Your task to perform on an android device: open sync settings in chrome Image 0: 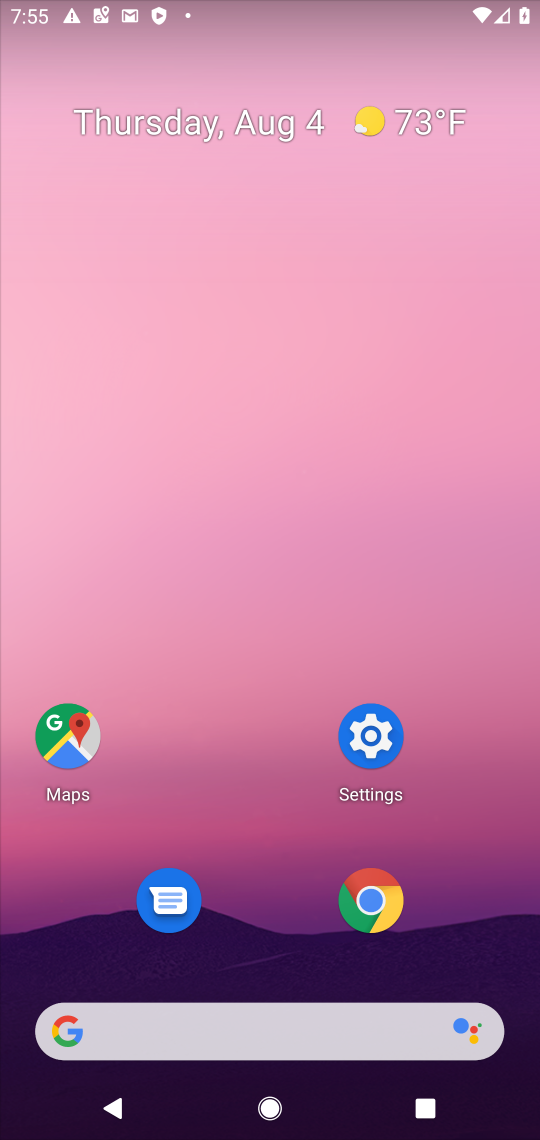
Step 0: click (372, 900)
Your task to perform on an android device: open sync settings in chrome Image 1: 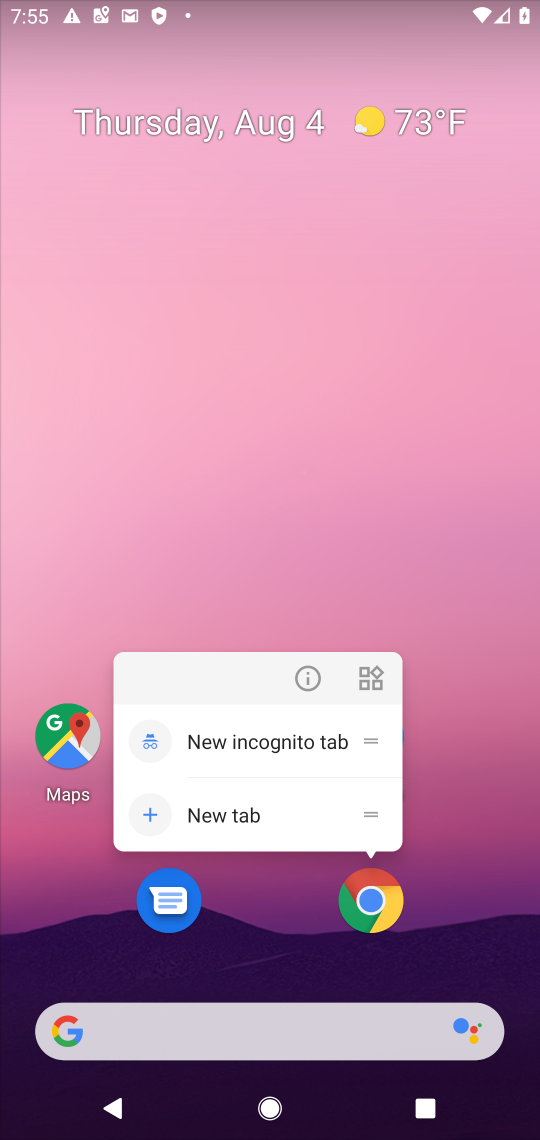
Step 1: click (372, 903)
Your task to perform on an android device: open sync settings in chrome Image 2: 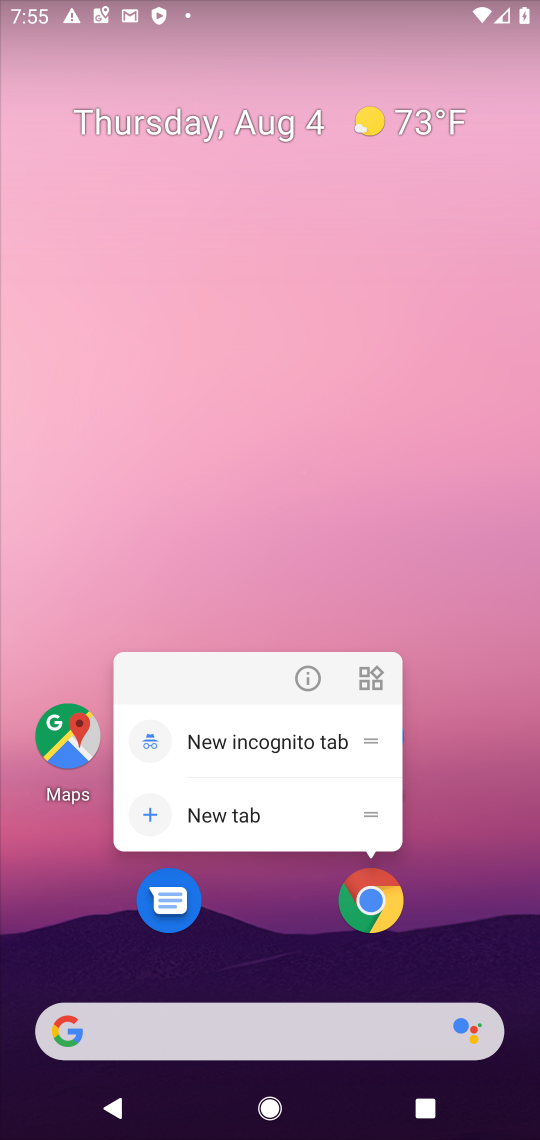
Step 2: click (372, 905)
Your task to perform on an android device: open sync settings in chrome Image 3: 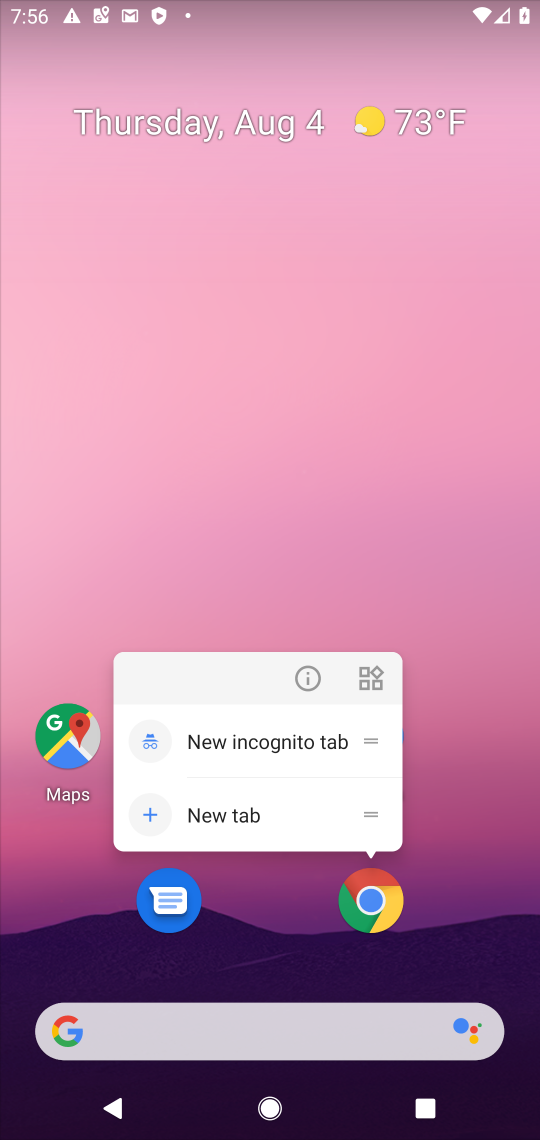
Step 3: click (372, 903)
Your task to perform on an android device: open sync settings in chrome Image 4: 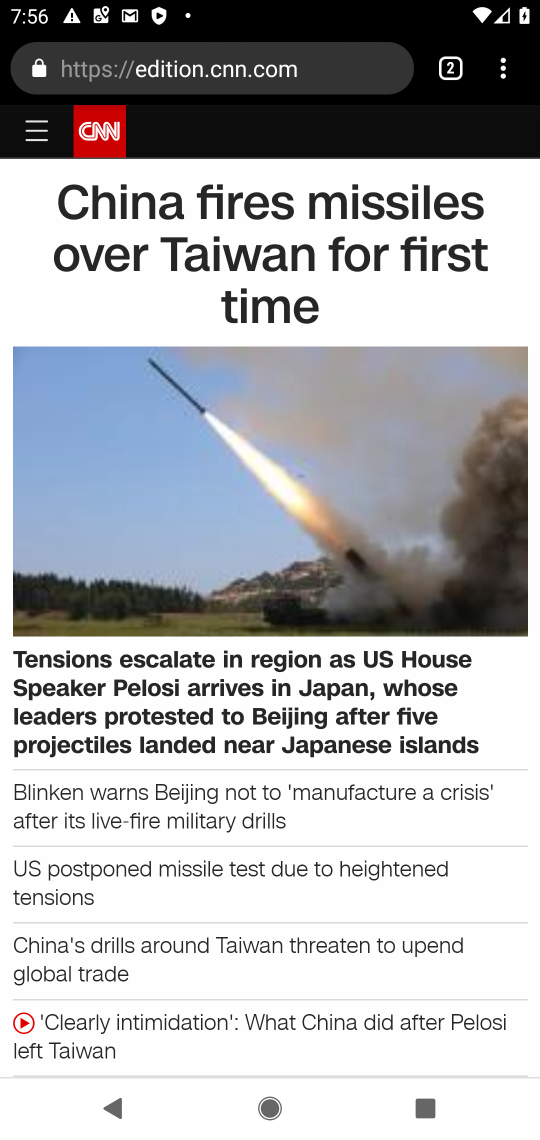
Step 4: drag from (501, 65) to (309, 842)
Your task to perform on an android device: open sync settings in chrome Image 5: 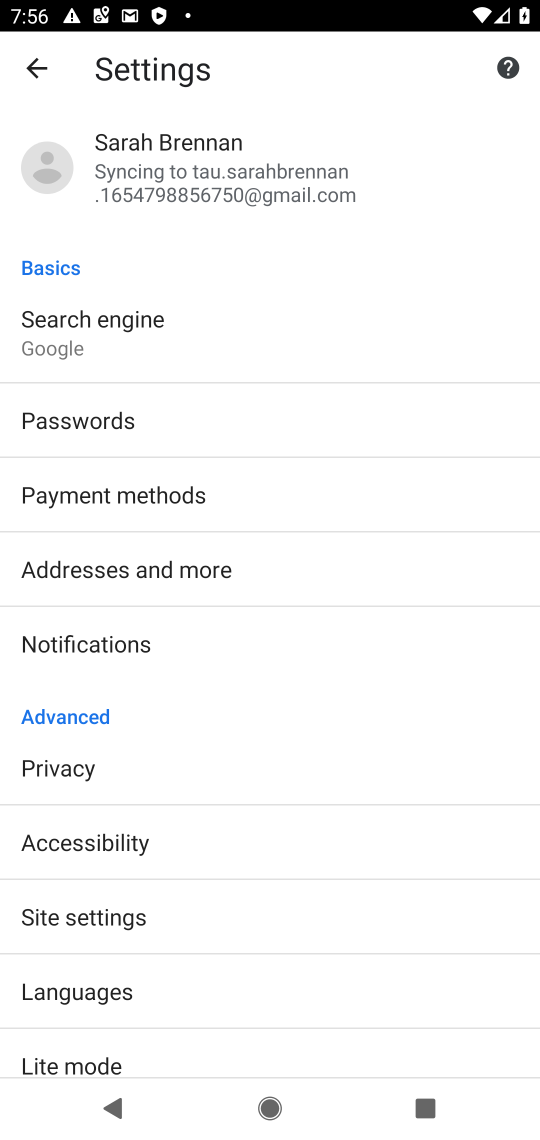
Step 5: click (313, 133)
Your task to perform on an android device: open sync settings in chrome Image 6: 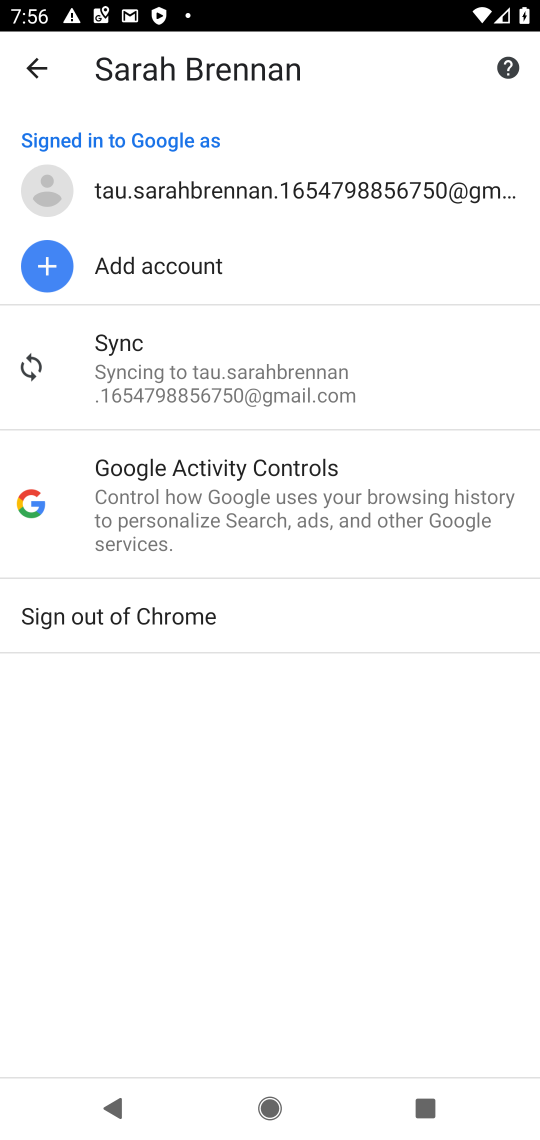
Step 6: click (180, 342)
Your task to perform on an android device: open sync settings in chrome Image 7: 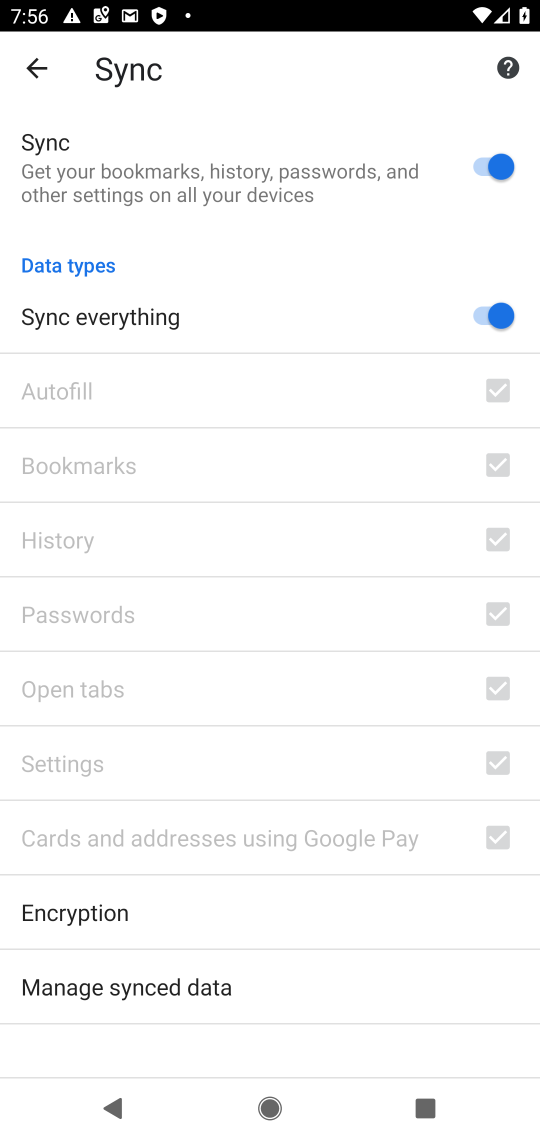
Step 7: task complete